Your task to perform on an android device: turn off airplane mode Image 0: 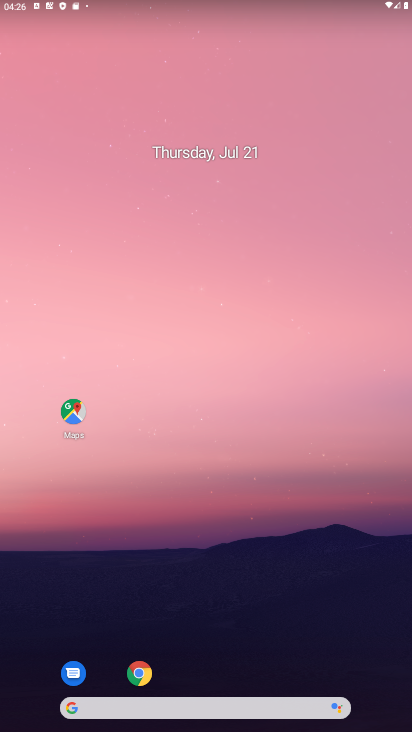
Step 0: drag from (388, 681) to (308, 113)
Your task to perform on an android device: turn off airplane mode Image 1: 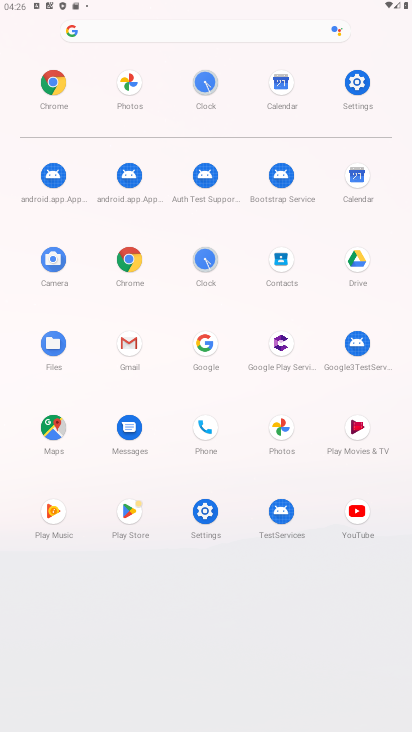
Step 1: click (204, 513)
Your task to perform on an android device: turn off airplane mode Image 2: 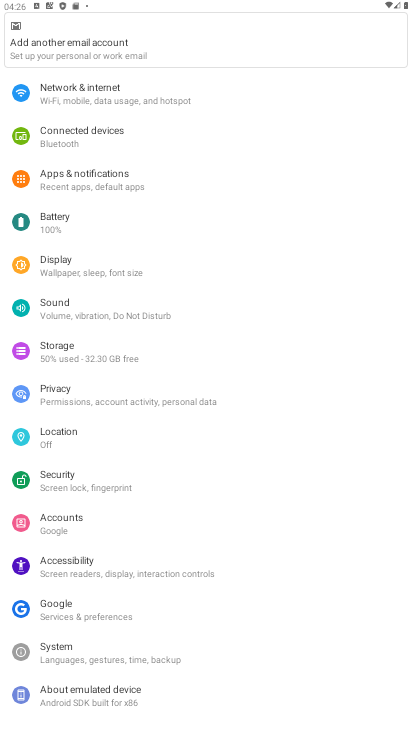
Step 2: click (76, 84)
Your task to perform on an android device: turn off airplane mode Image 3: 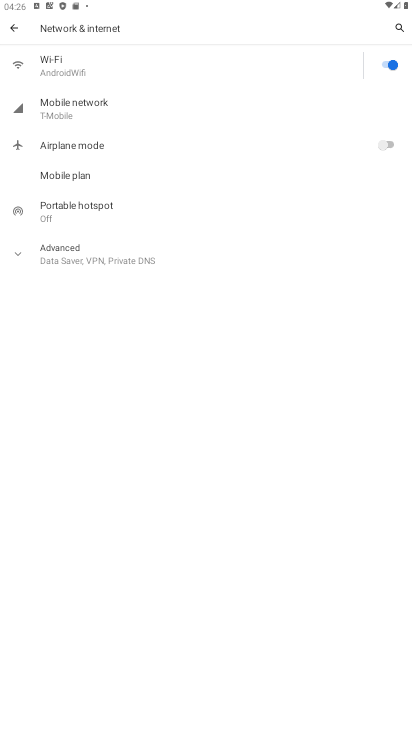
Step 3: task complete